Your task to perform on an android device: Open Reddit.com Image 0: 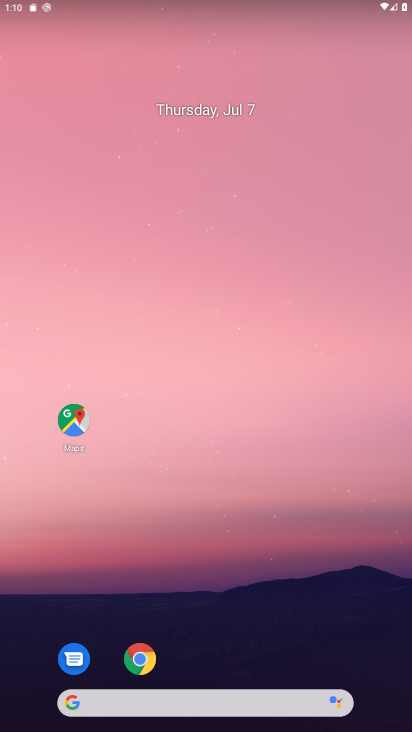
Step 0: drag from (233, 660) to (260, 111)
Your task to perform on an android device: Open Reddit.com Image 1: 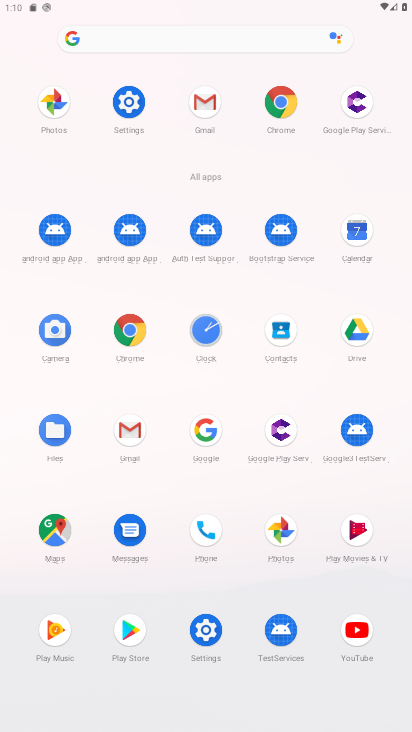
Step 1: click (240, 42)
Your task to perform on an android device: Open Reddit.com Image 2: 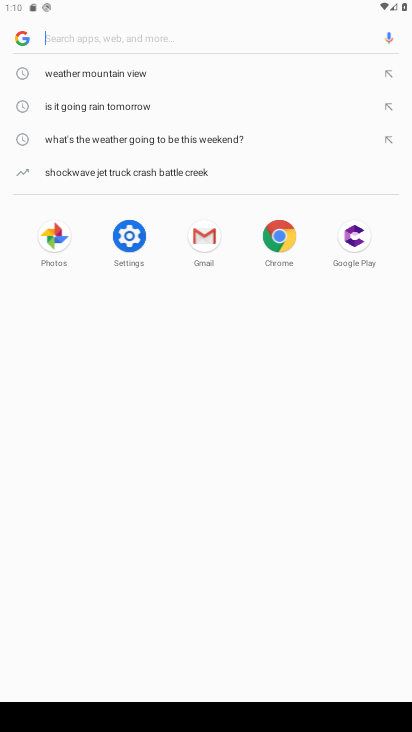
Step 2: type "Reddit.com"
Your task to perform on an android device: Open Reddit.com Image 3: 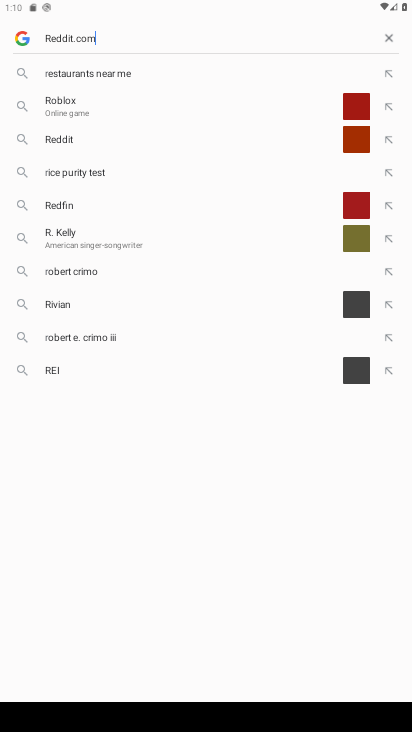
Step 3: type ""
Your task to perform on an android device: Open Reddit.com Image 4: 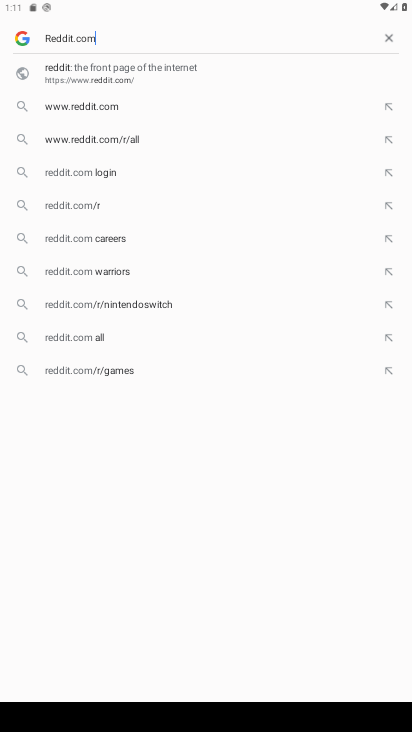
Step 4: click (103, 104)
Your task to perform on an android device: Open Reddit.com Image 5: 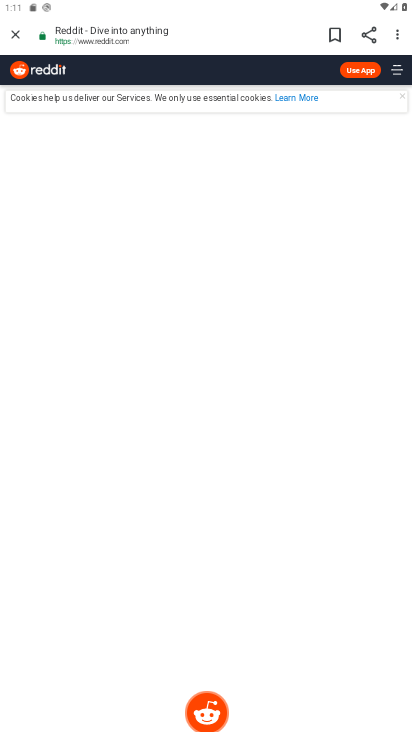
Step 5: task complete